Your task to perform on an android device: find photos in the google photos app Image 0: 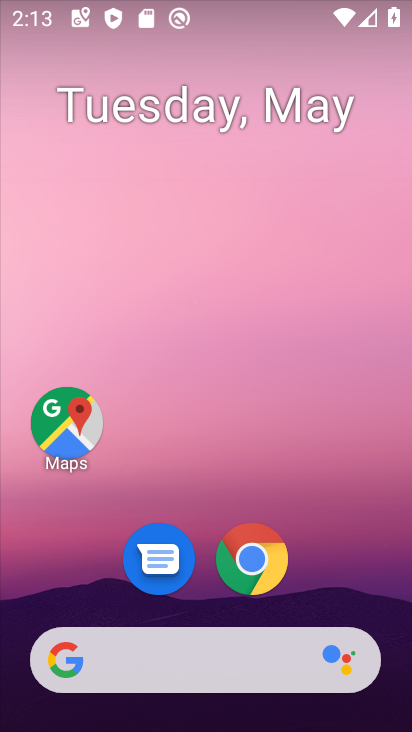
Step 0: drag from (198, 658) to (304, 141)
Your task to perform on an android device: find photos in the google photos app Image 1: 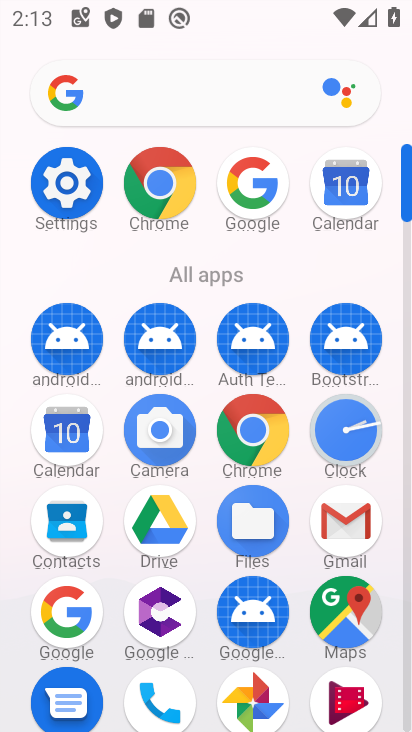
Step 1: click (246, 689)
Your task to perform on an android device: find photos in the google photos app Image 2: 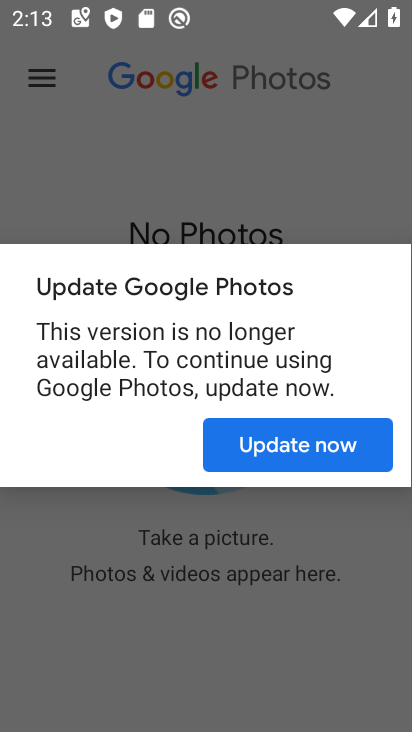
Step 2: click (284, 450)
Your task to perform on an android device: find photos in the google photos app Image 3: 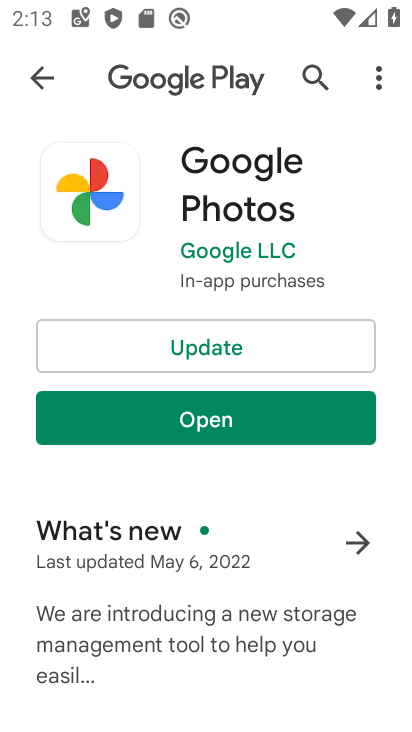
Step 3: click (238, 423)
Your task to perform on an android device: find photos in the google photos app Image 4: 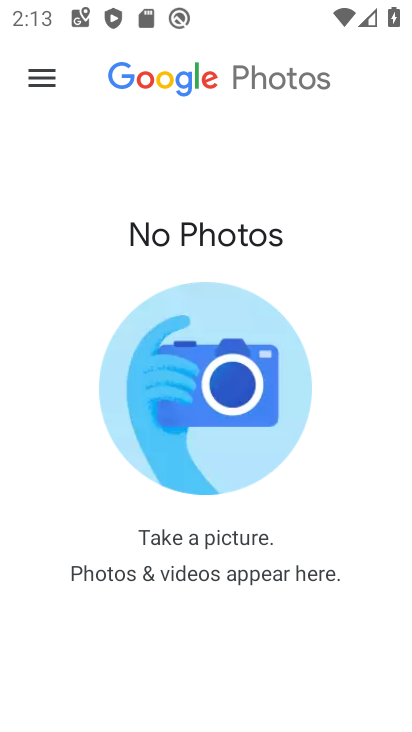
Step 4: click (41, 75)
Your task to perform on an android device: find photos in the google photos app Image 5: 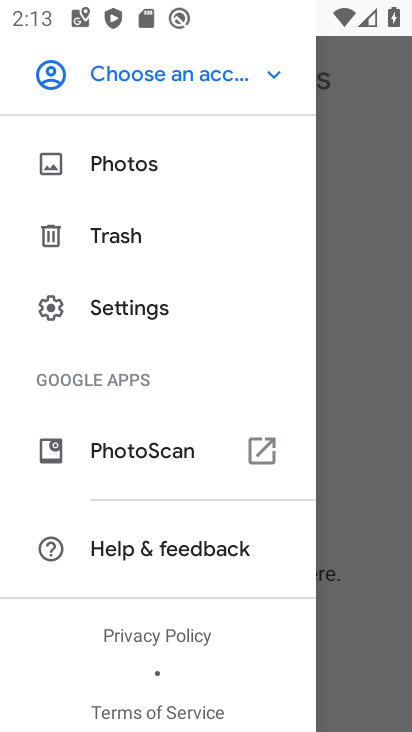
Step 5: click (81, 158)
Your task to perform on an android device: find photos in the google photos app Image 6: 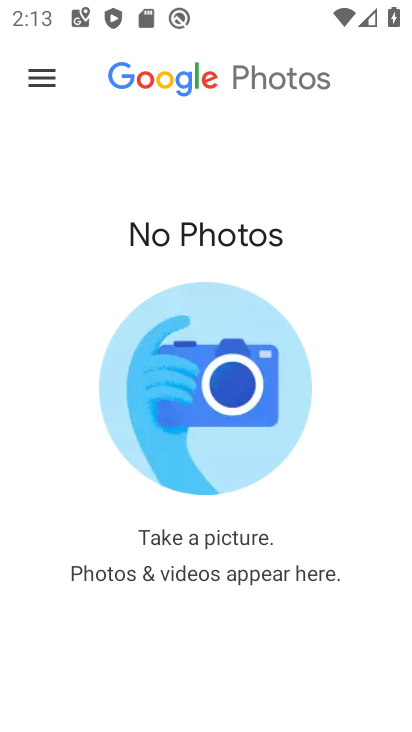
Step 6: task complete